Your task to perform on an android device: manage bookmarks in the chrome app Image 0: 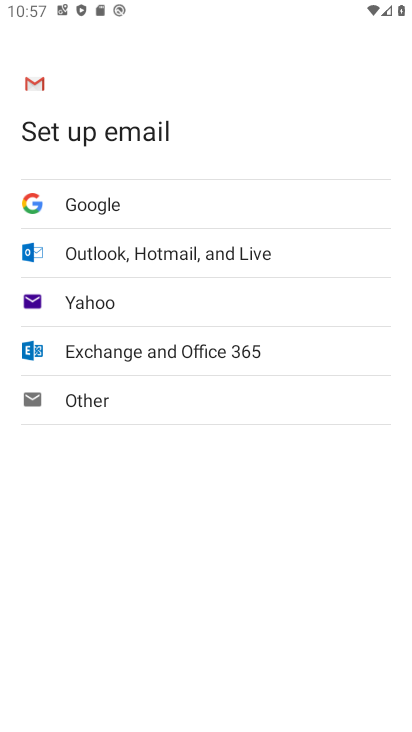
Step 0: press home button
Your task to perform on an android device: manage bookmarks in the chrome app Image 1: 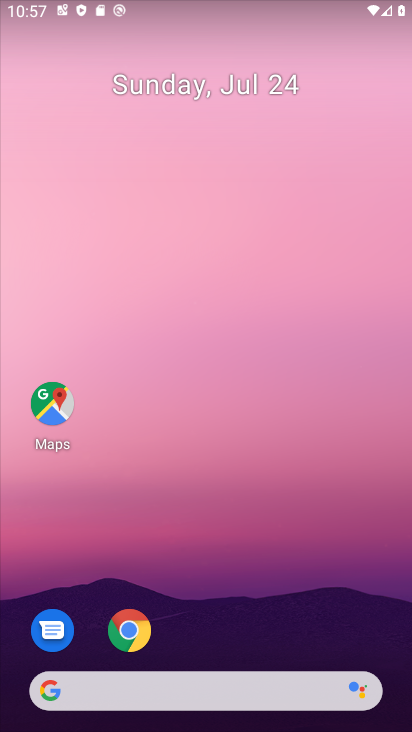
Step 1: click (126, 620)
Your task to perform on an android device: manage bookmarks in the chrome app Image 2: 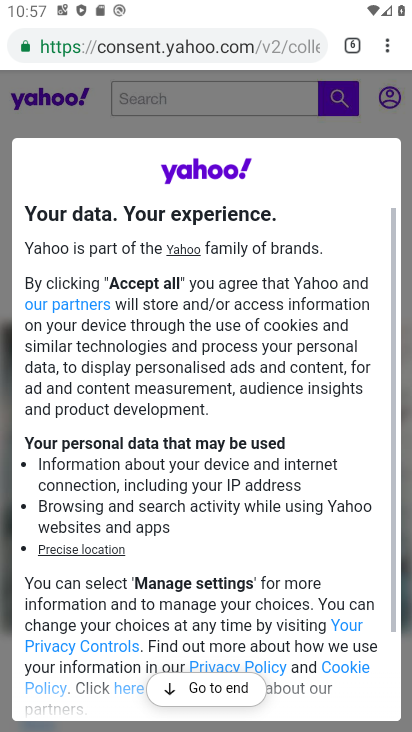
Step 2: click (389, 40)
Your task to perform on an android device: manage bookmarks in the chrome app Image 3: 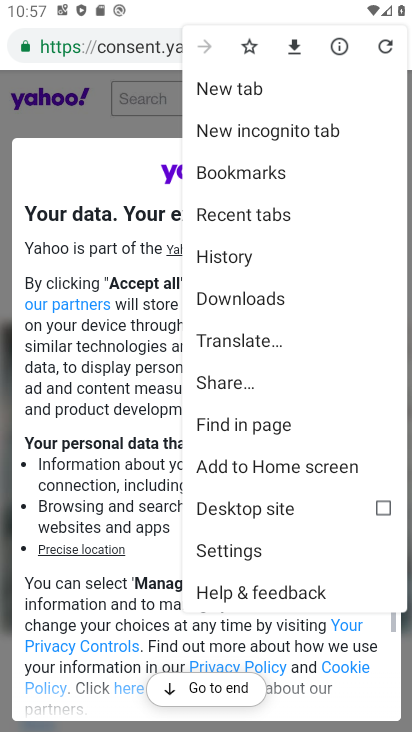
Step 3: click (272, 186)
Your task to perform on an android device: manage bookmarks in the chrome app Image 4: 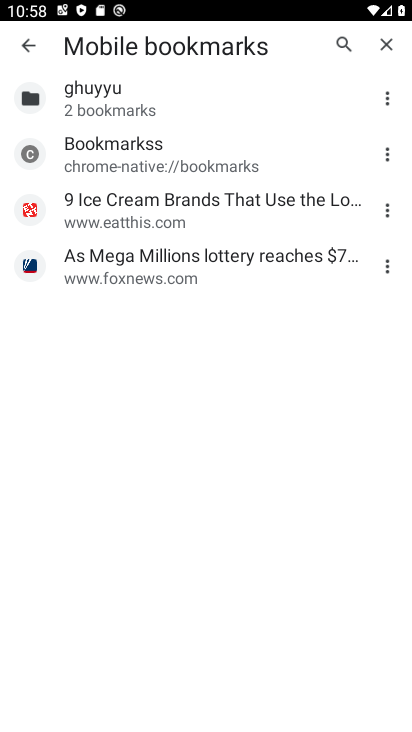
Step 4: click (374, 219)
Your task to perform on an android device: manage bookmarks in the chrome app Image 5: 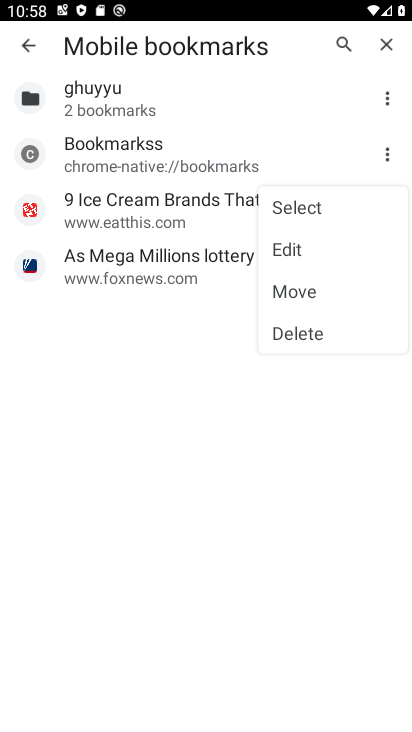
Step 5: click (297, 293)
Your task to perform on an android device: manage bookmarks in the chrome app Image 6: 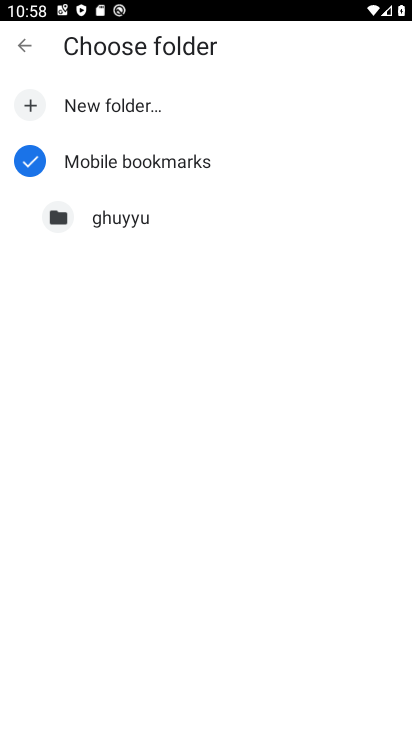
Step 6: click (159, 211)
Your task to perform on an android device: manage bookmarks in the chrome app Image 7: 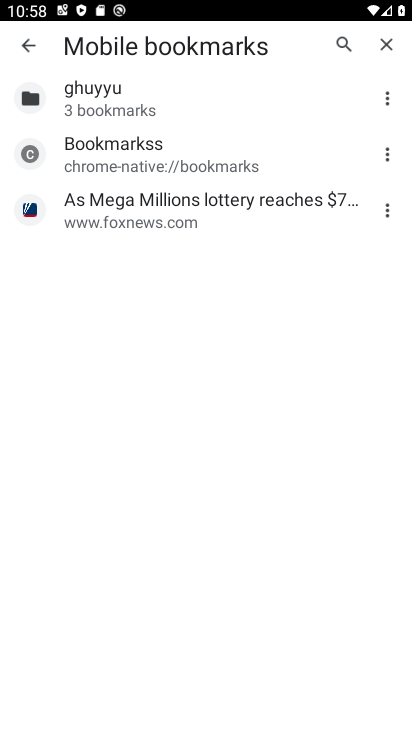
Step 7: task complete